Your task to perform on an android device: Go to Google maps Image 0: 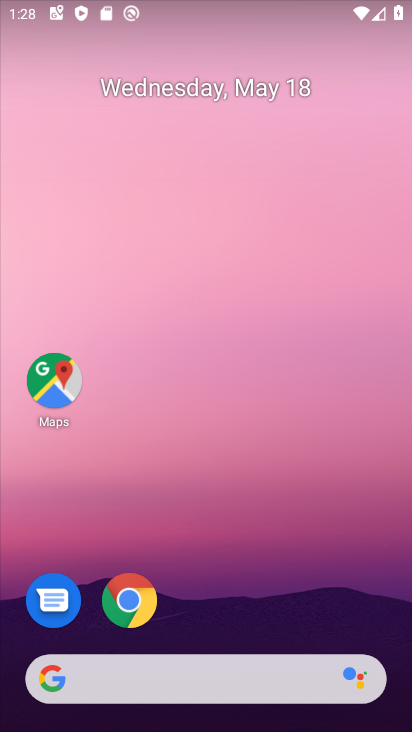
Step 0: click (51, 384)
Your task to perform on an android device: Go to Google maps Image 1: 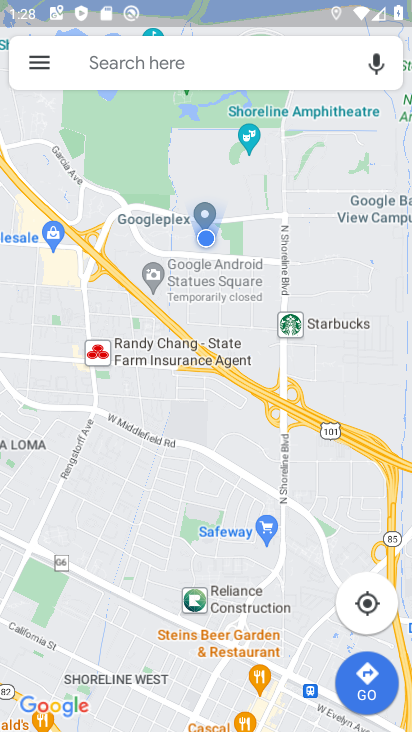
Step 1: task complete